Your task to perform on an android device: Is it going to rain today? Image 0: 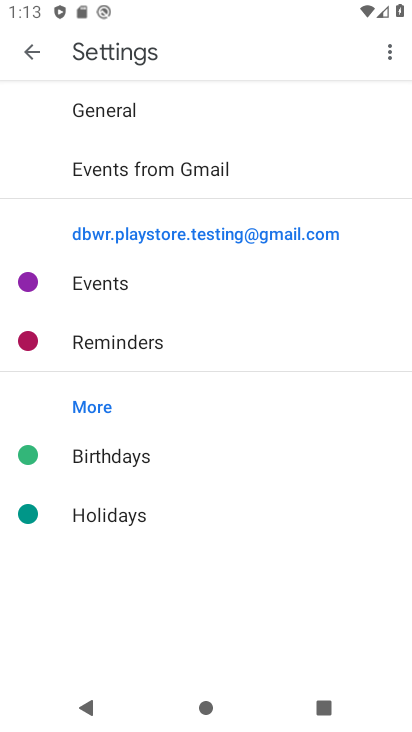
Step 0: press home button
Your task to perform on an android device: Is it going to rain today? Image 1: 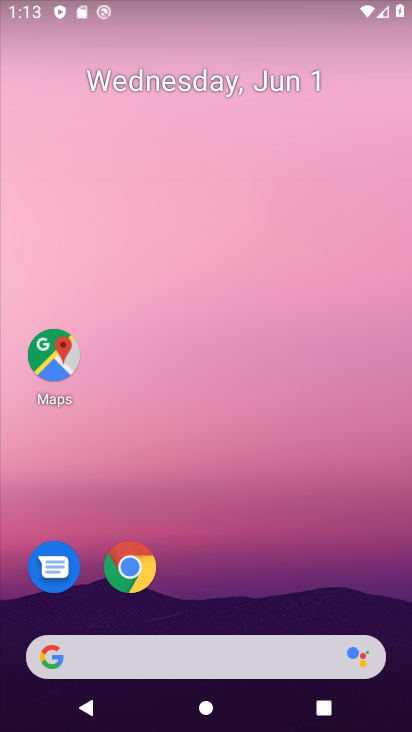
Step 1: drag from (229, 656) to (294, 6)
Your task to perform on an android device: Is it going to rain today? Image 2: 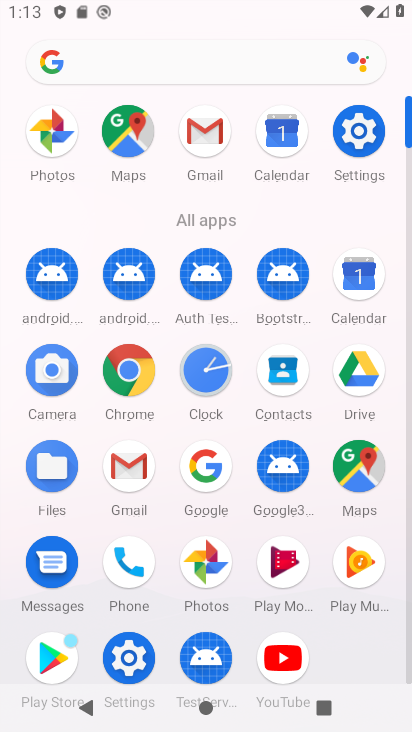
Step 2: click (192, 460)
Your task to perform on an android device: Is it going to rain today? Image 3: 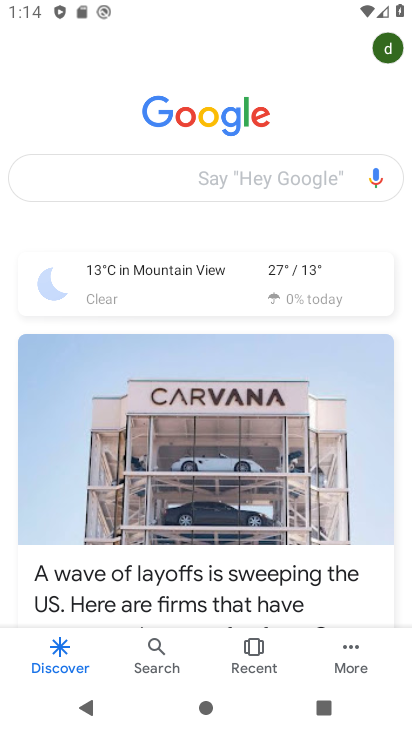
Step 3: click (75, 291)
Your task to perform on an android device: Is it going to rain today? Image 4: 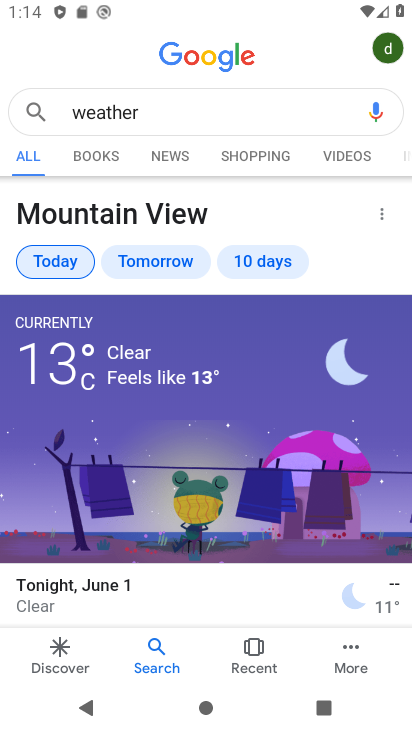
Step 4: task complete